Your task to perform on an android device: Do I have any events this weekend? Image 0: 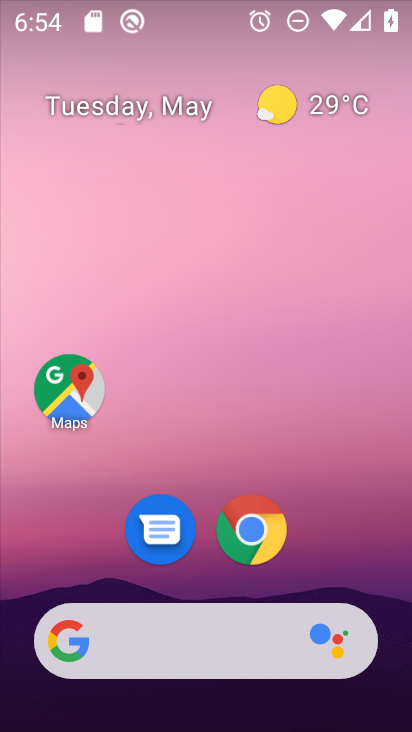
Step 0: drag from (394, 617) to (263, 20)
Your task to perform on an android device: Do I have any events this weekend? Image 1: 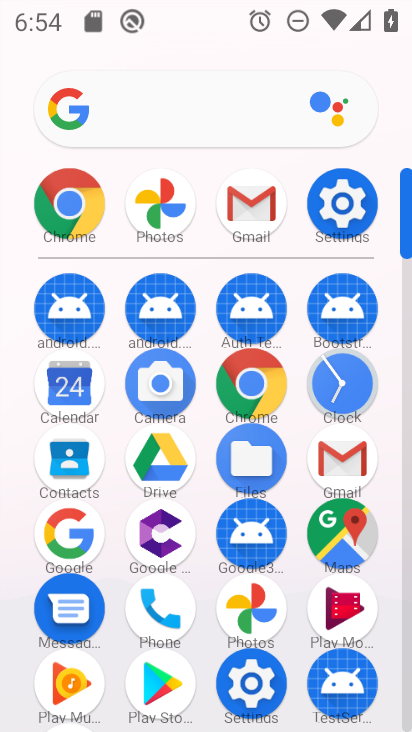
Step 1: click (60, 400)
Your task to perform on an android device: Do I have any events this weekend? Image 2: 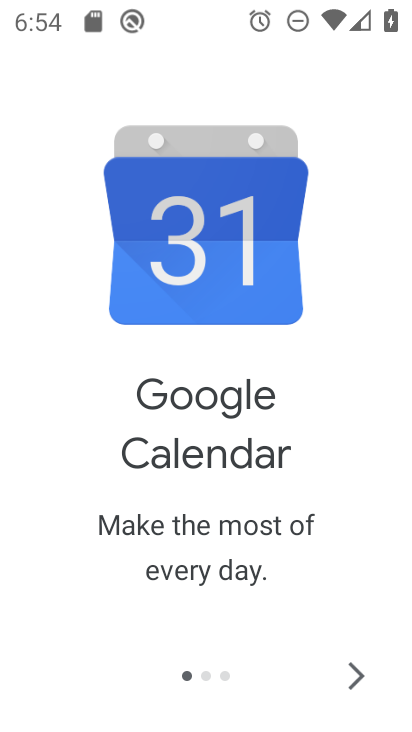
Step 2: click (375, 674)
Your task to perform on an android device: Do I have any events this weekend? Image 3: 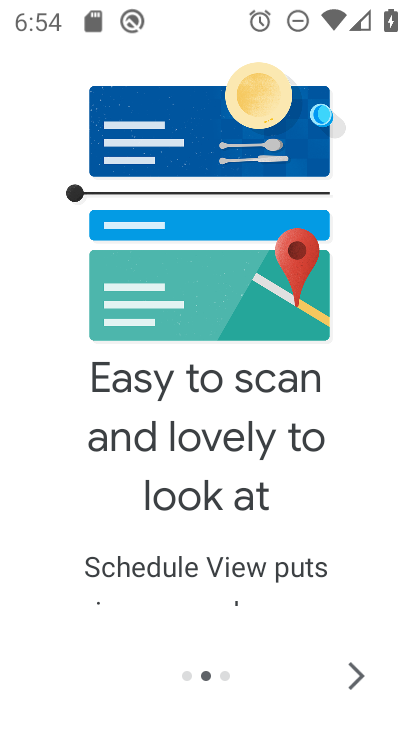
Step 3: click (371, 677)
Your task to perform on an android device: Do I have any events this weekend? Image 4: 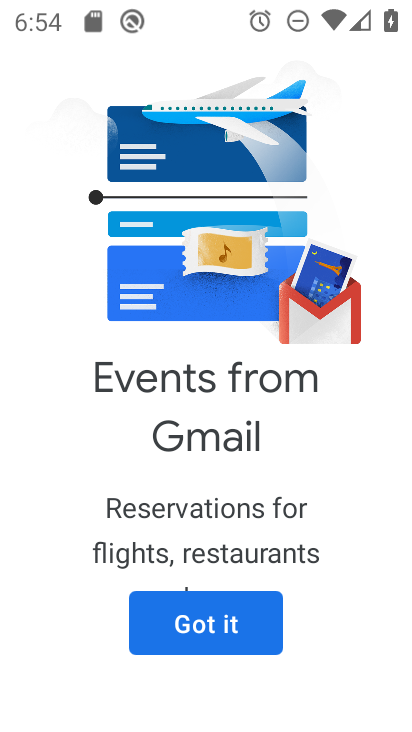
Step 4: click (238, 631)
Your task to perform on an android device: Do I have any events this weekend? Image 5: 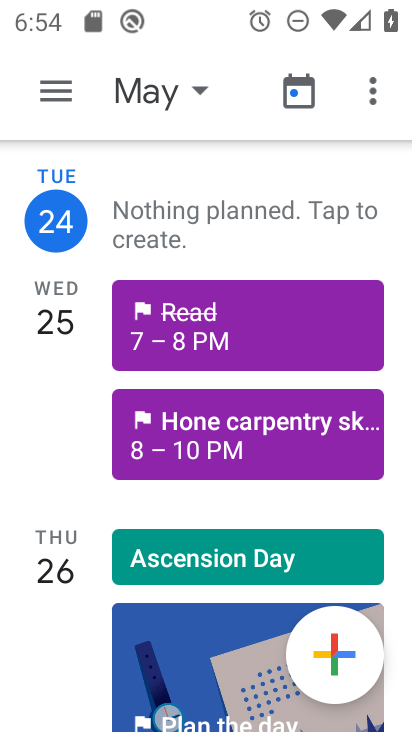
Step 5: task complete